Your task to perform on an android device: Check the news Image 0: 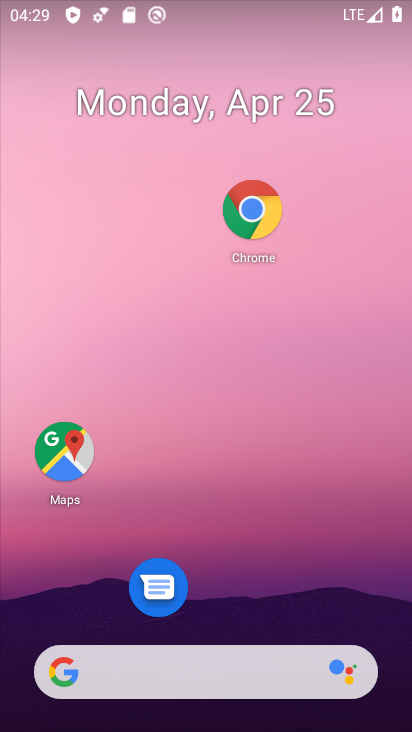
Step 0: click (249, 184)
Your task to perform on an android device: Check the news Image 1: 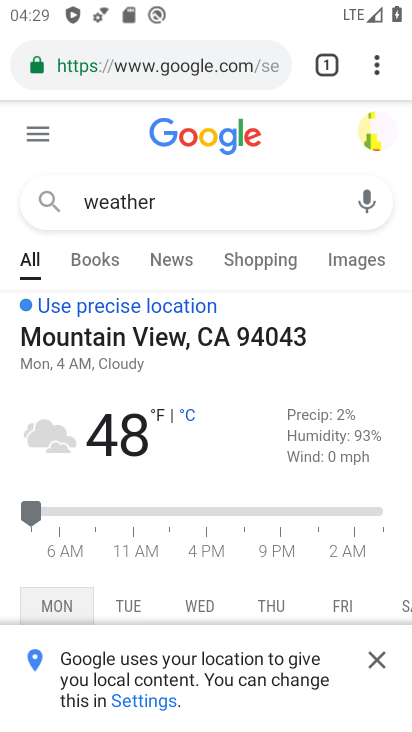
Step 1: click (225, 57)
Your task to perform on an android device: Check the news Image 2: 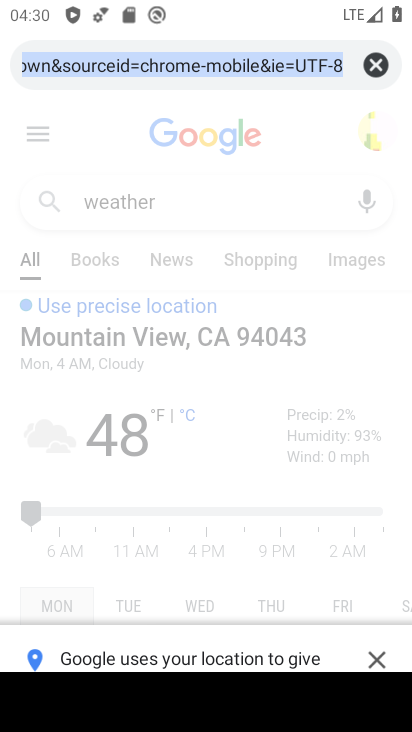
Step 2: type "news"
Your task to perform on an android device: Check the news Image 3: 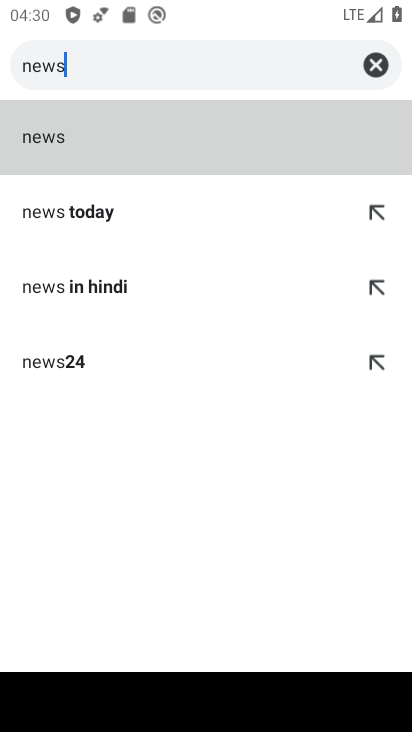
Step 3: click (30, 133)
Your task to perform on an android device: Check the news Image 4: 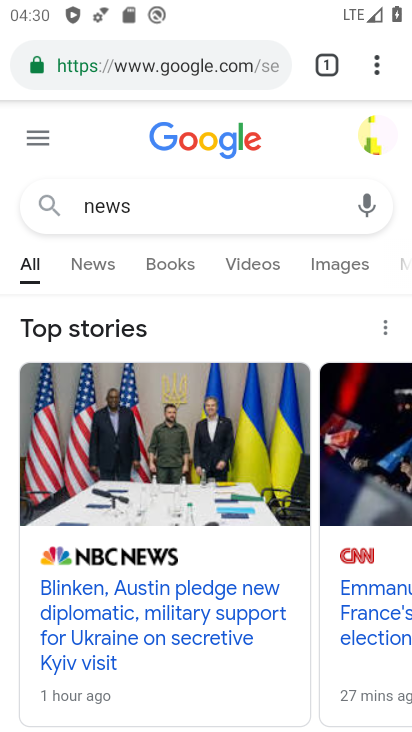
Step 4: task complete